Your task to perform on an android device: find snoozed emails in the gmail app Image 0: 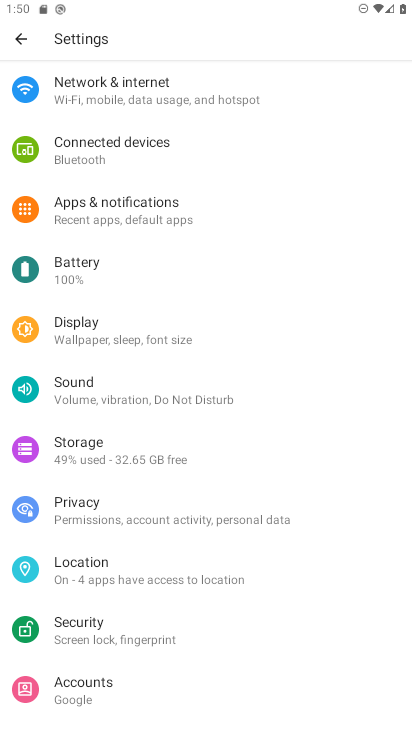
Step 0: press home button
Your task to perform on an android device: find snoozed emails in the gmail app Image 1: 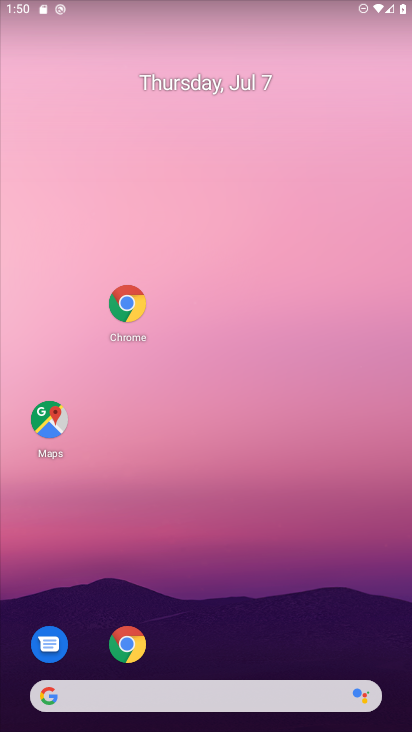
Step 1: drag from (257, 596) to (323, 71)
Your task to perform on an android device: find snoozed emails in the gmail app Image 2: 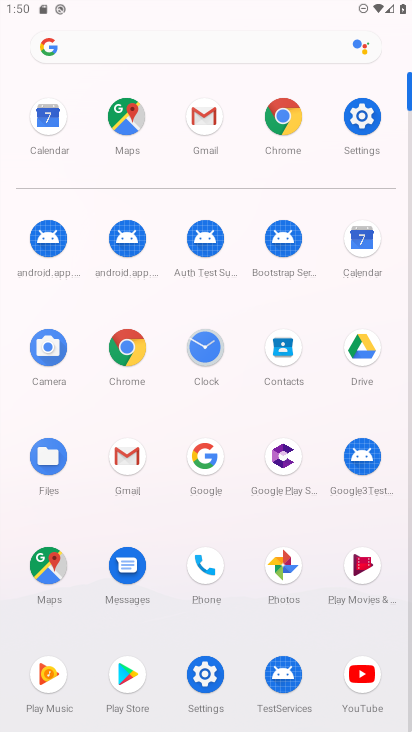
Step 2: click (142, 458)
Your task to perform on an android device: find snoozed emails in the gmail app Image 3: 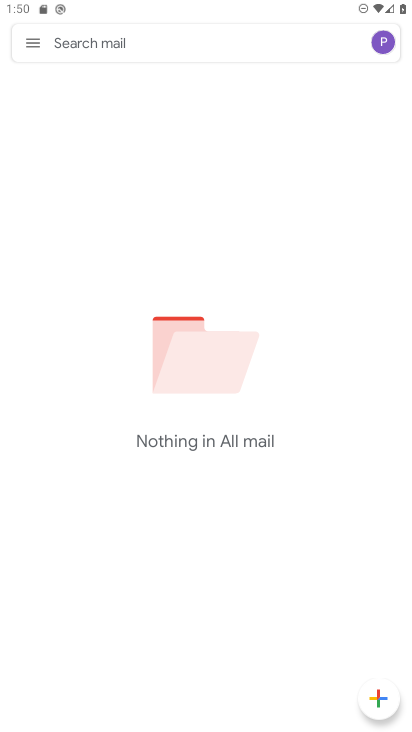
Step 3: click (44, 44)
Your task to perform on an android device: find snoozed emails in the gmail app Image 4: 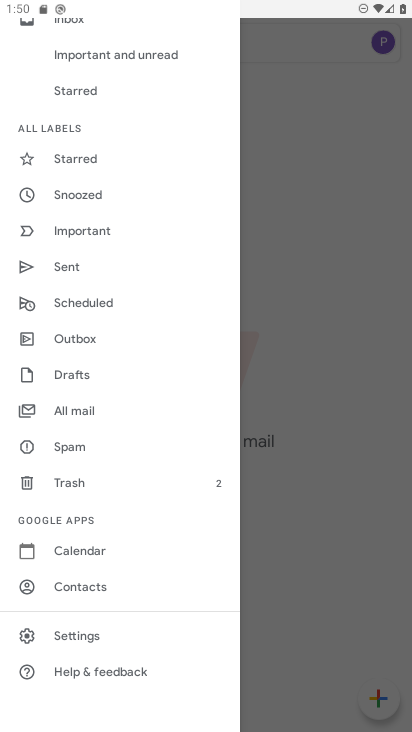
Step 4: click (126, 192)
Your task to perform on an android device: find snoozed emails in the gmail app Image 5: 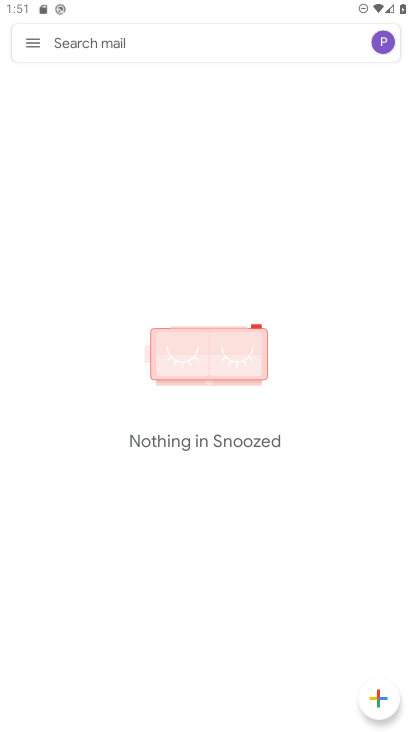
Step 5: task complete